Your task to perform on an android device: Open Google Chrome and open the bookmarks view Image 0: 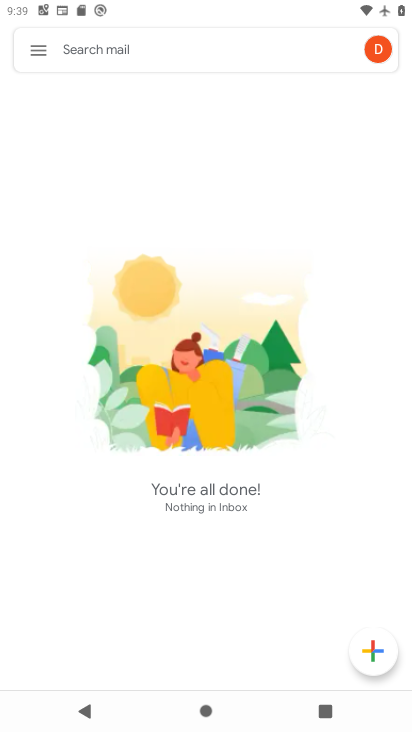
Step 0: press home button
Your task to perform on an android device: Open Google Chrome and open the bookmarks view Image 1: 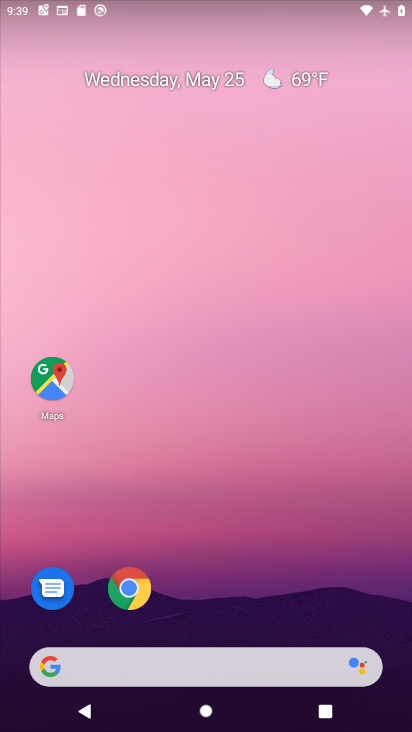
Step 1: drag from (366, 608) to (379, 189)
Your task to perform on an android device: Open Google Chrome and open the bookmarks view Image 2: 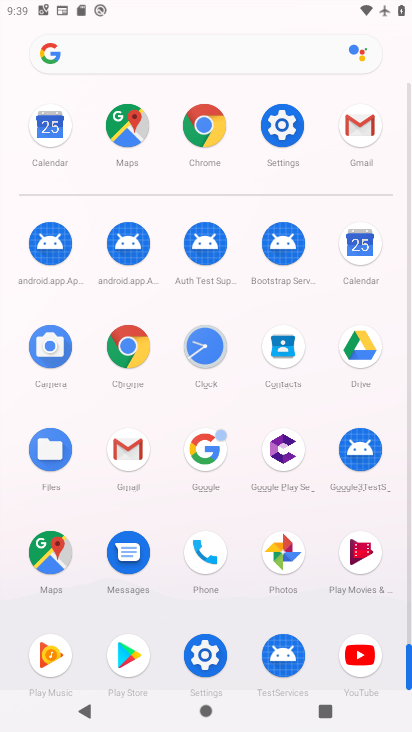
Step 2: click (206, 137)
Your task to perform on an android device: Open Google Chrome and open the bookmarks view Image 3: 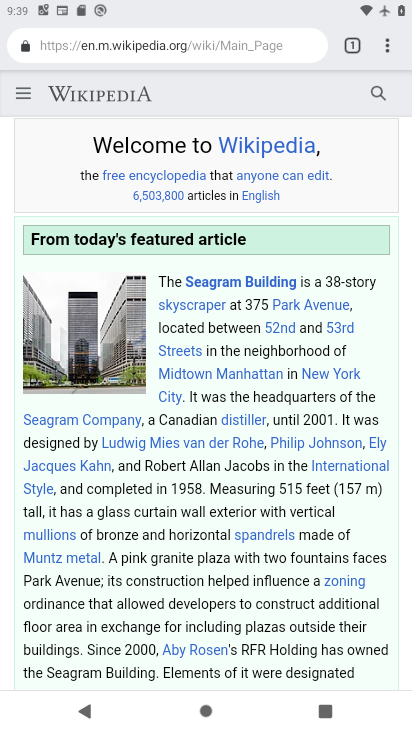
Step 3: click (390, 50)
Your task to perform on an android device: Open Google Chrome and open the bookmarks view Image 4: 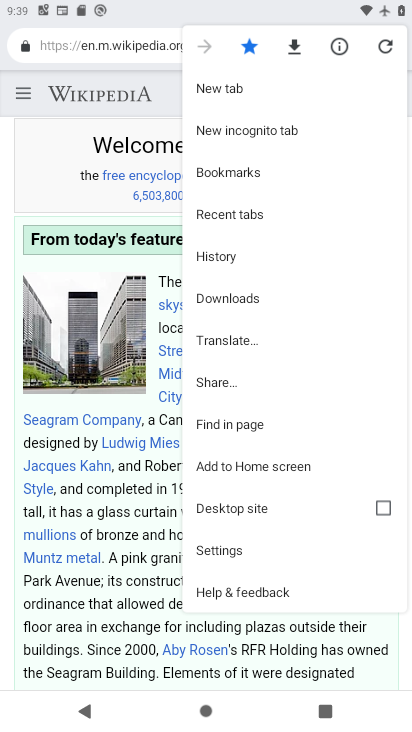
Step 4: click (255, 174)
Your task to perform on an android device: Open Google Chrome and open the bookmarks view Image 5: 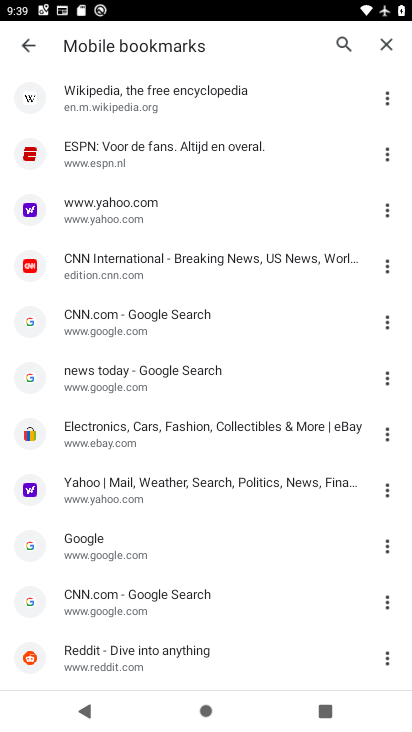
Step 5: task complete